Your task to perform on an android device: turn smart compose on in the gmail app Image 0: 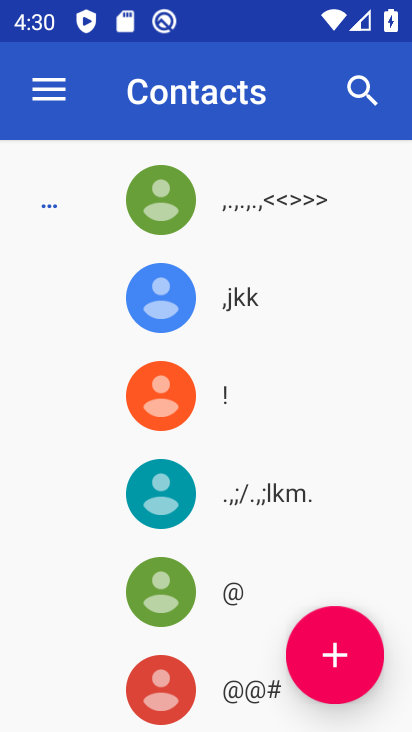
Step 0: press home button
Your task to perform on an android device: turn smart compose on in the gmail app Image 1: 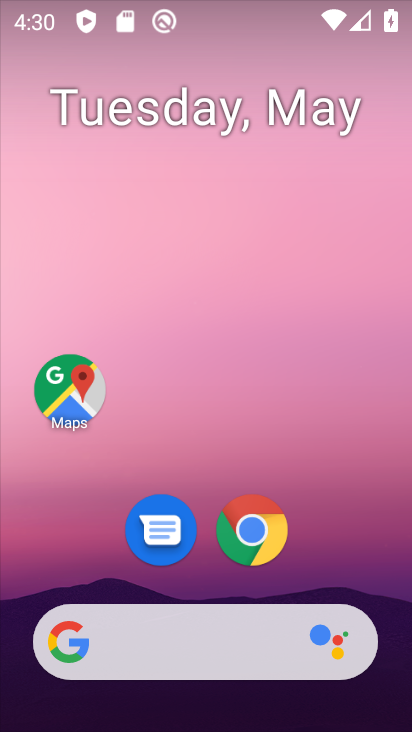
Step 1: drag from (38, 587) to (267, 130)
Your task to perform on an android device: turn smart compose on in the gmail app Image 2: 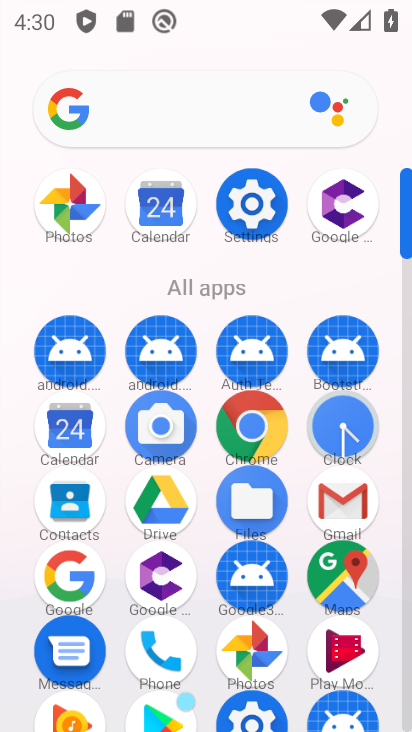
Step 2: click (329, 490)
Your task to perform on an android device: turn smart compose on in the gmail app Image 3: 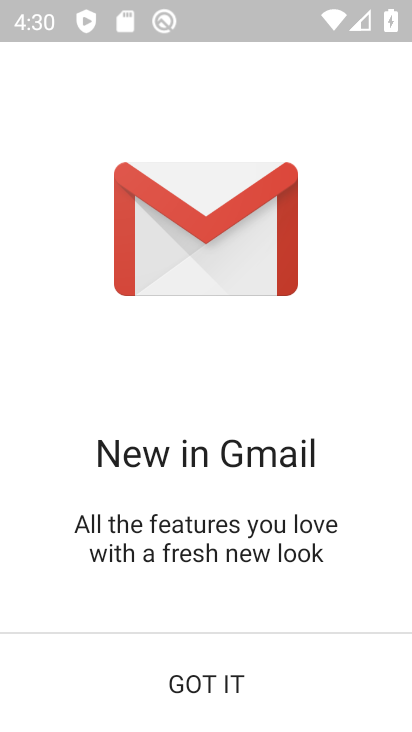
Step 3: click (228, 681)
Your task to perform on an android device: turn smart compose on in the gmail app Image 4: 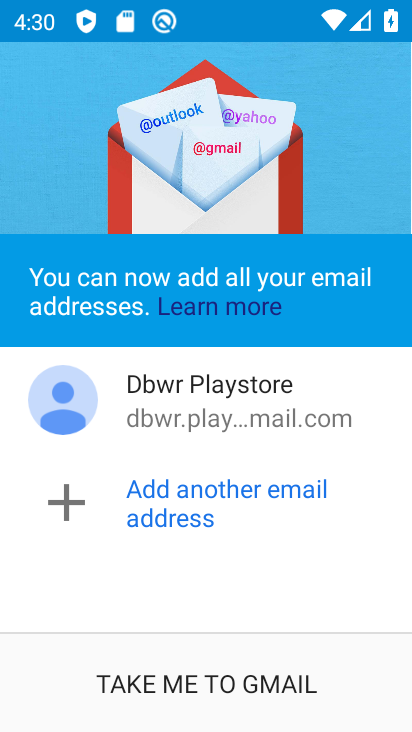
Step 4: click (280, 686)
Your task to perform on an android device: turn smart compose on in the gmail app Image 5: 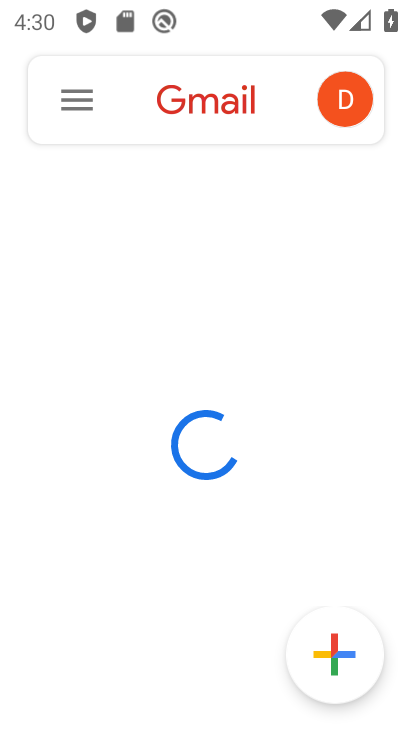
Step 5: click (72, 102)
Your task to perform on an android device: turn smart compose on in the gmail app Image 6: 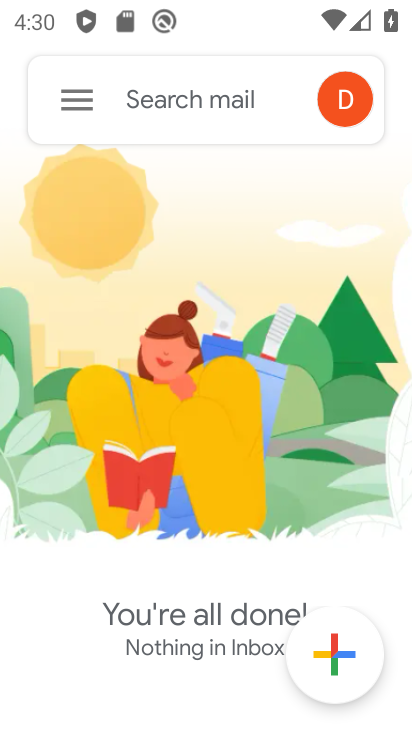
Step 6: click (78, 107)
Your task to perform on an android device: turn smart compose on in the gmail app Image 7: 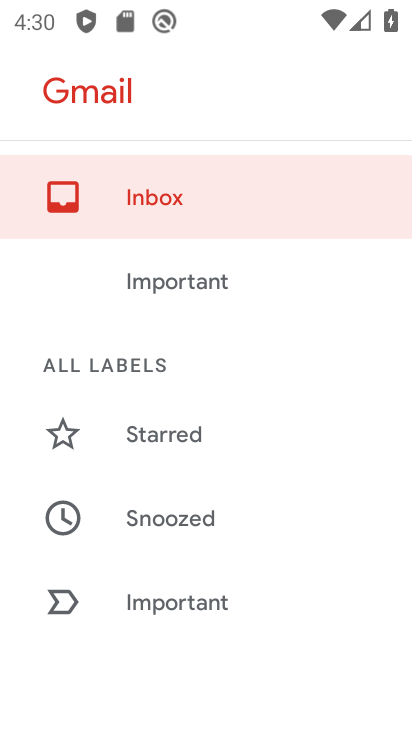
Step 7: drag from (184, 664) to (313, 43)
Your task to perform on an android device: turn smart compose on in the gmail app Image 8: 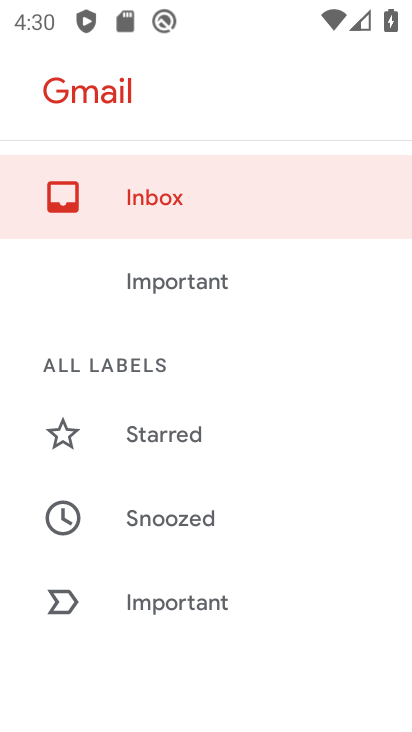
Step 8: drag from (191, 602) to (337, 63)
Your task to perform on an android device: turn smart compose on in the gmail app Image 9: 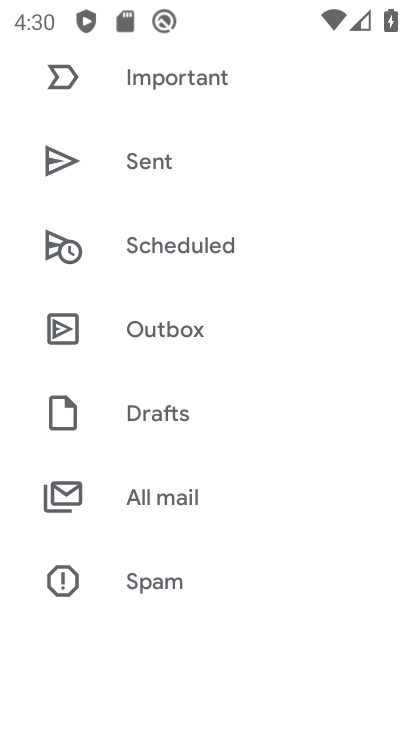
Step 9: drag from (240, 602) to (355, 136)
Your task to perform on an android device: turn smart compose on in the gmail app Image 10: 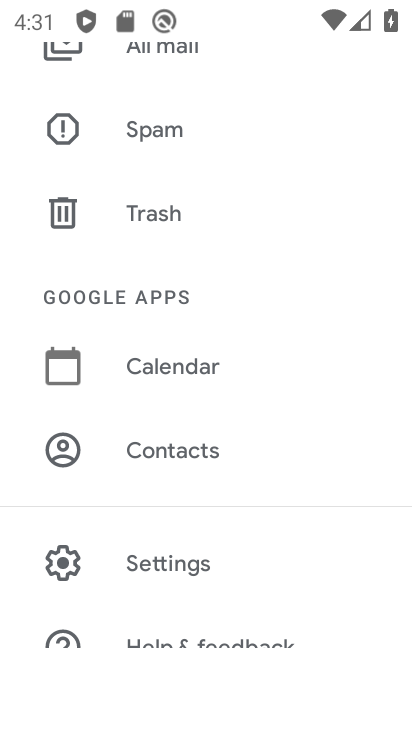
Step 10: click (202, 585)
Your task to perform on an android device: turn smart compose on in the gmail app Image 11: 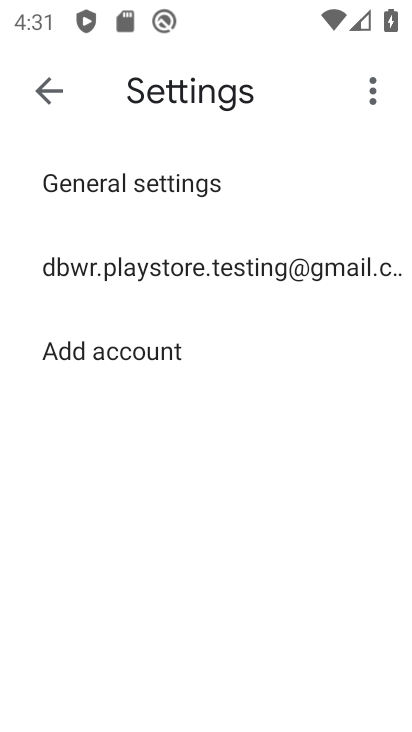
Step 11: click (311, 293)
Your task to perform on an android device: turn smart compose on in the gmail app Image 12: 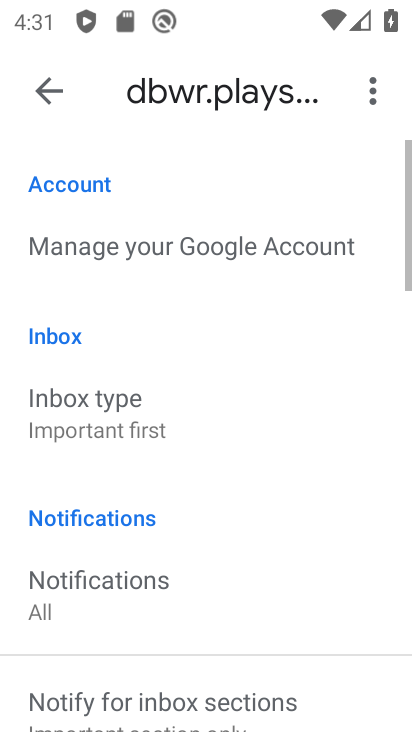
Step 12: task complete